Your task to perform on an android device: What's the weather going to be tomorrow? Image 0: 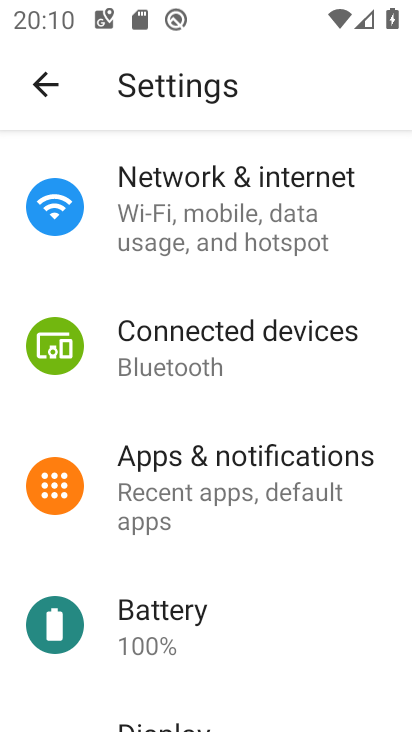
Step 0: press home button
Your task to perform on an android device: What's the weather going to be tomorrow? Image 1: 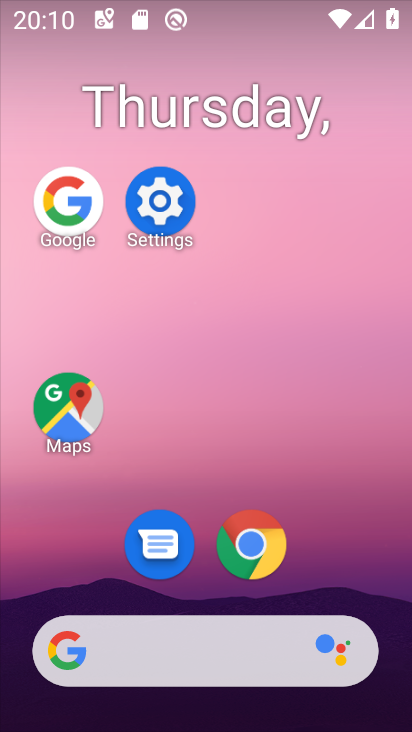
Step 1: drag from (221, 709) to (355, 151)
Your task to perform on an android device: What's the weather going to be tomorrow? Image 2: 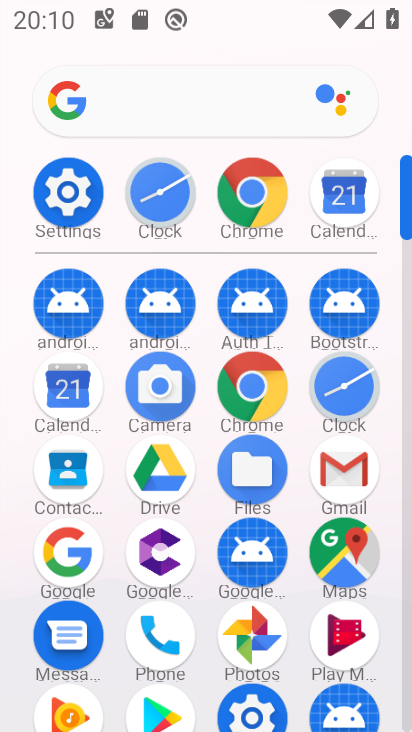
Step 2: click (218, 98)
Your task to perform on an android device: What's the weather going to be tomorrow? Image 3: 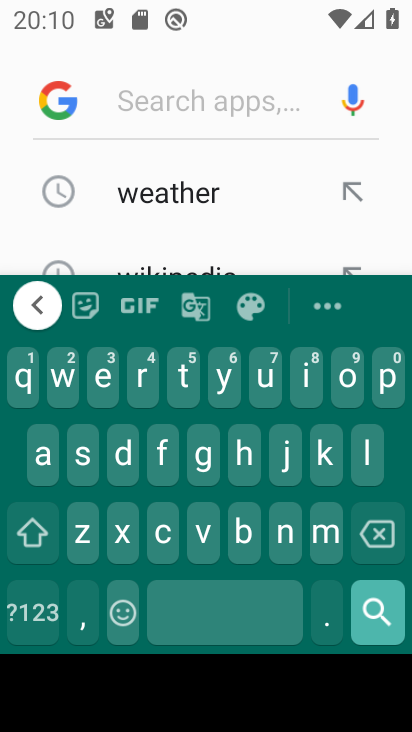
Step 3: click (180, 199)
Your task to perform on an android device: What's the weather going to be tomorrow? Image 4: 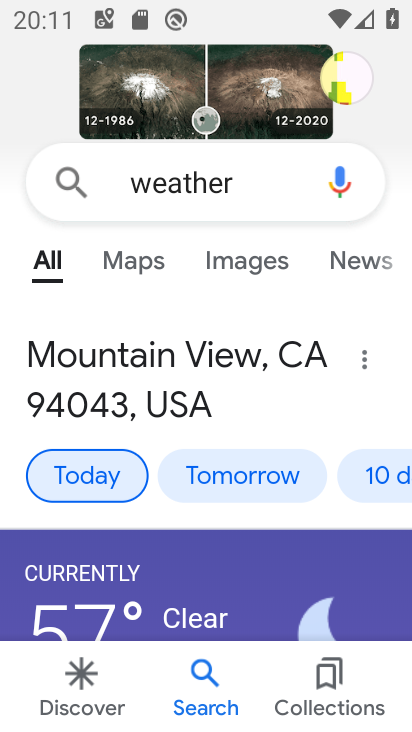
Step 4: click (239, 485)
Your task to perform on an android device: What's the weather going to be tomorrow? Image 5: 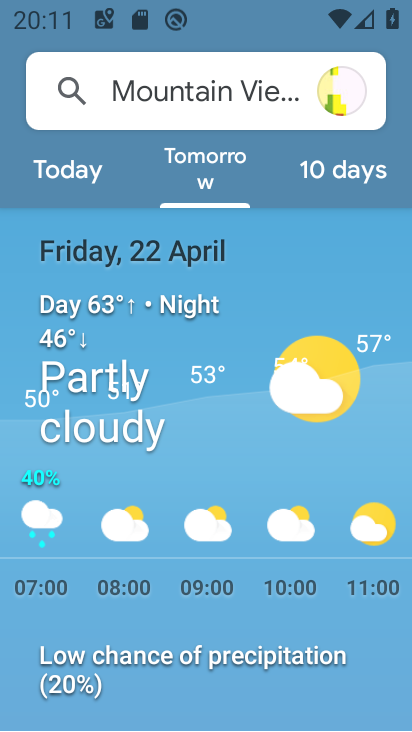
Step 5: task complete